Your task to perform on an android device: turn off location history Image 0: 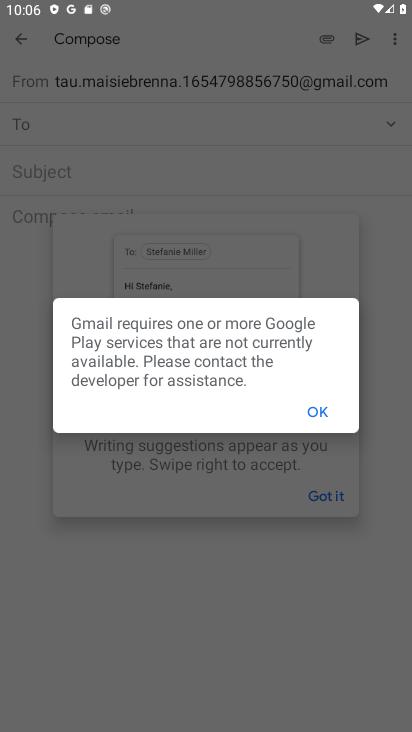
Step 0: press home button
Your task to perform on an android device: turn off location history Image 1: 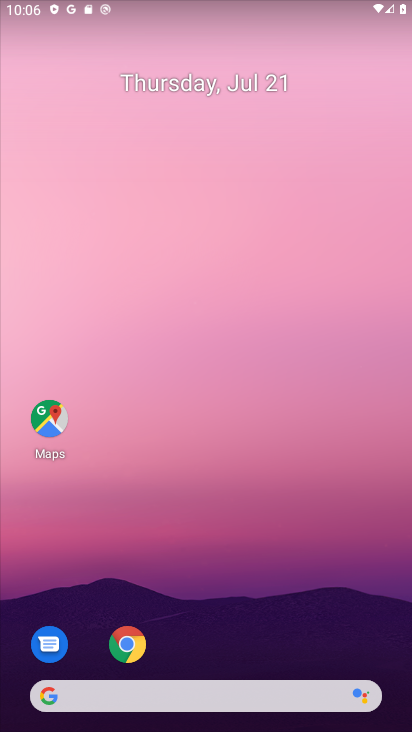
Step 1: drag from (232, 645) to (262, 2)
Your task to perform on an android device: turn off location history Image 2: 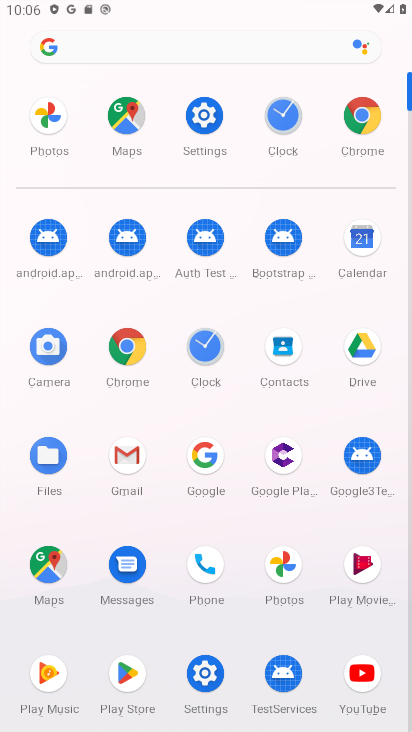
Step 2: click (202, 120)
Your task to perform on an android device: turn off location history Image 3: 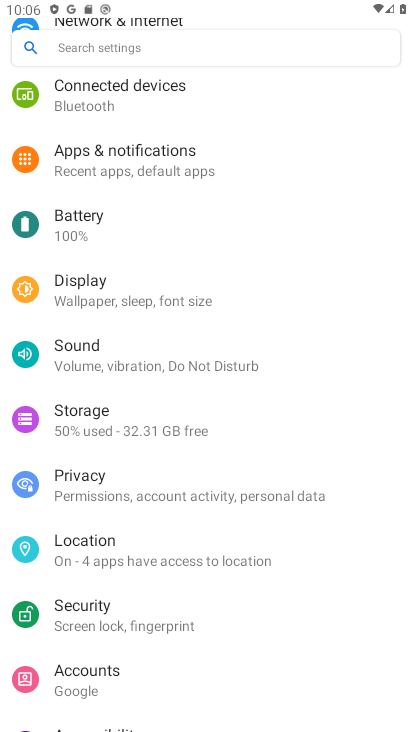
Step 3: click (111, 538)
Your task to perform on an android device: turn off location history Image 4: 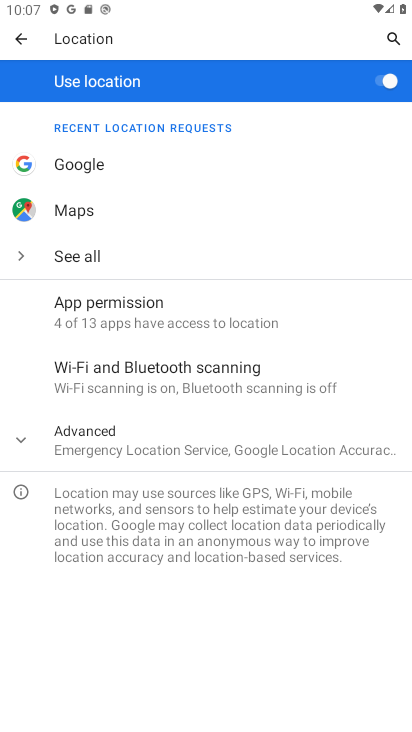
Step 4: click (95, 431)
Your task to perform on an android device: turn off location history Image 5: 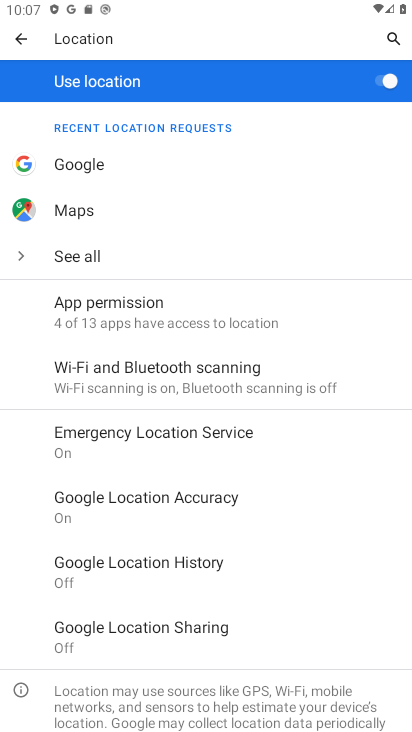
Step 5: click (96, 575)
Your task to perform on an android device: turn off location history Image 6: 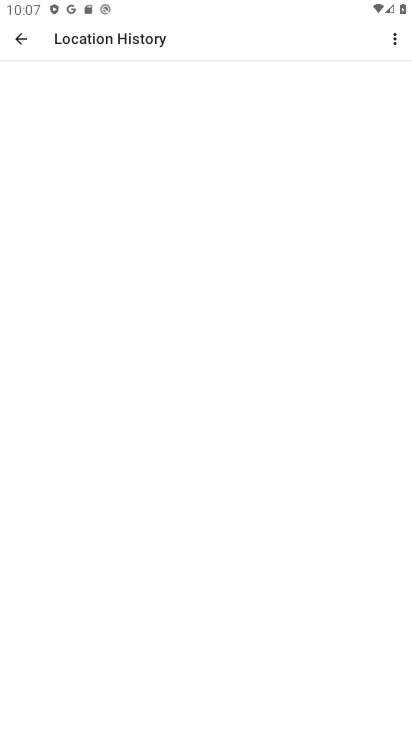
Step 6: task complete